Your task to perform on an android device: Open internet settings Image 0: 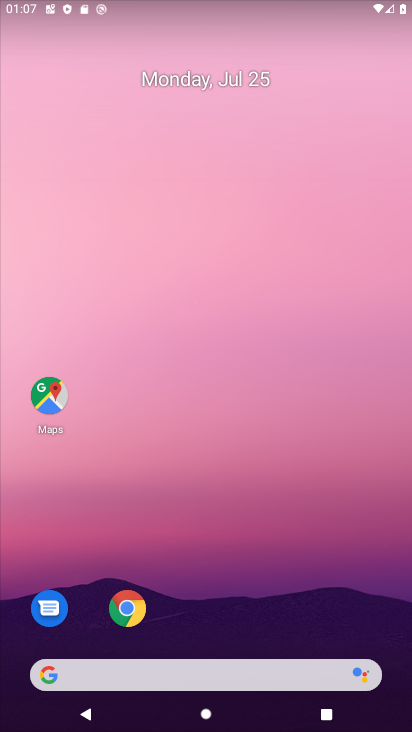
Step 0: drag from (192, 654) to (2, 163)
Your task to perform on an android device: Open internet settings Image 1: 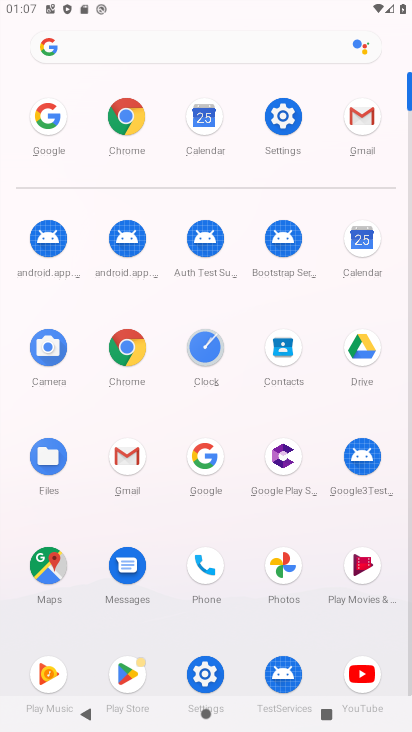
Step 1: click (196, 665)
Your task to perform on an android device: Open internet settings Image 2: 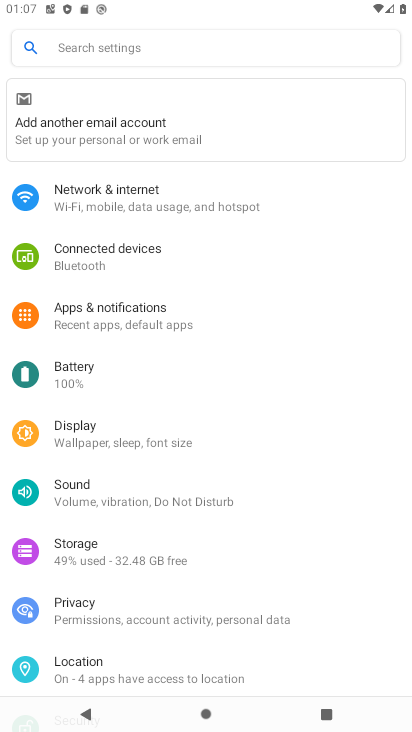
Step 2: click (120, 190)
Your task to perform on an android device: Open internet settings Image 3: 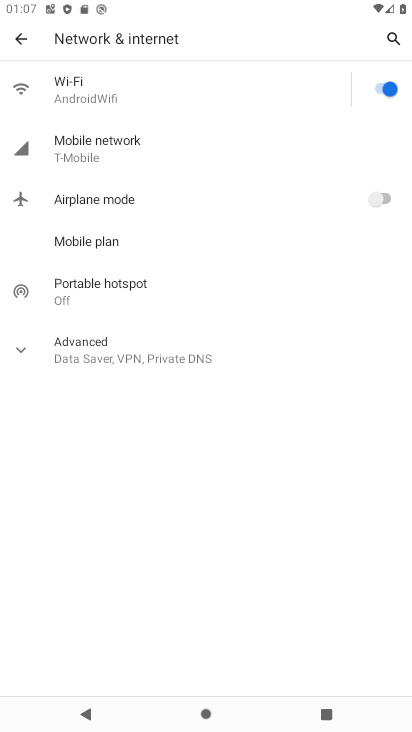
Step 3: click (111, 146)
Your task to perform on an android device: Open internet settings Image 4: 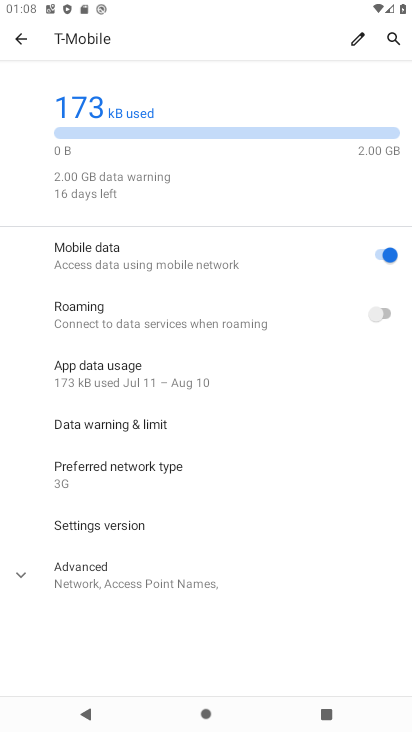
Step 4: task complete